Your task to perform on an android device: Open the calendar app, open the side menu, and click the "Day" option Image 0: 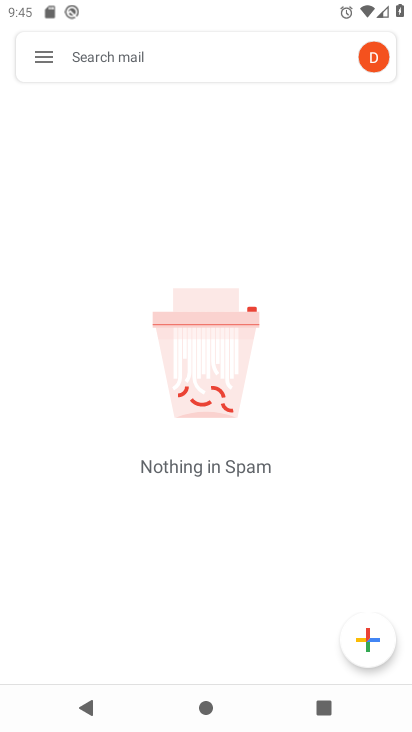
Step 0: press home button
Your task to perform on an android device: Open the calendar app, open the side menu, and click the "Day" option Image 1: 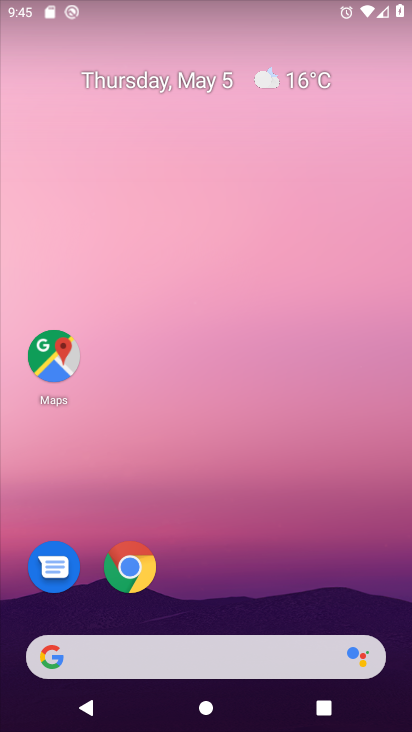
Step 1: drag from (207, 497) to (213, 31)
Your task to perform on an android device: Open the calendar app, open the side menu, and click the "Day" option Image 2: 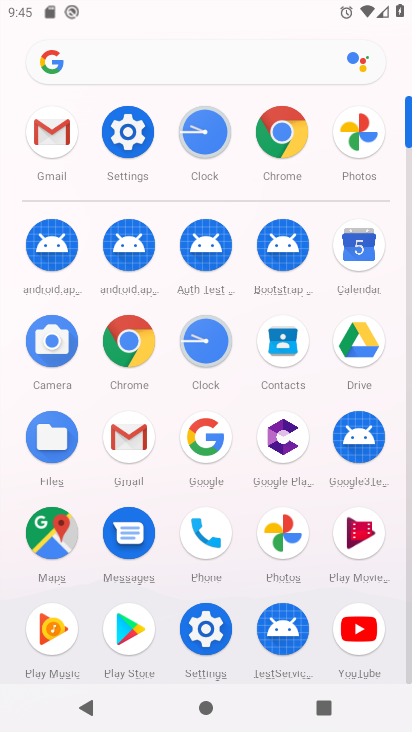
Step 2: click (357, 241)
Your task to perform on an android device: Open the calendar app, open the side menu, and click the "Day" option Image 3: 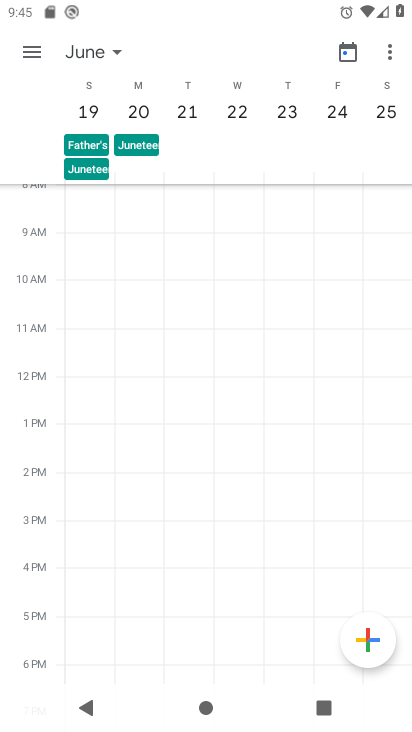
Step 3: click (28, 49)
Your task to perform on an android device: Open the calendar app, open the side menu, and click the "Day" option Image 4: 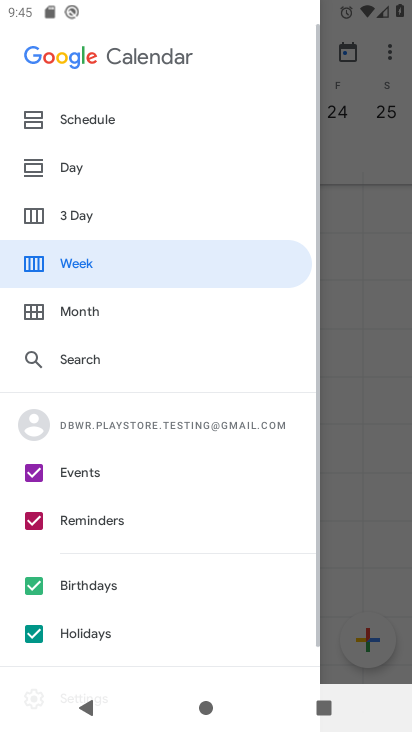
Step 4: click (68, 163)
Your task to perform on an android device: Open the calendar app, open the side menu, and click the "Day" option Image 5: 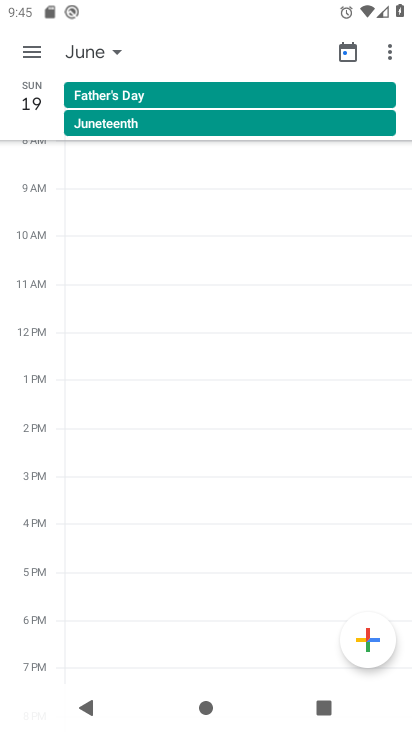
Step 5: task complete